Your task to perform on an android device: check google app version Image 0: 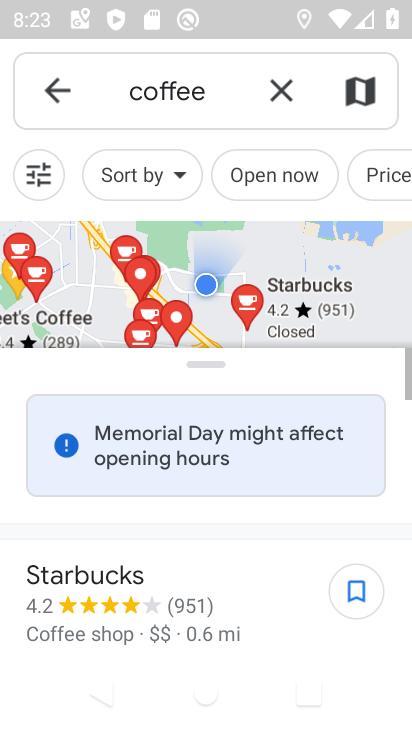
Step 0: press home button
Your task to perform on an android device: check google app version Image 1: 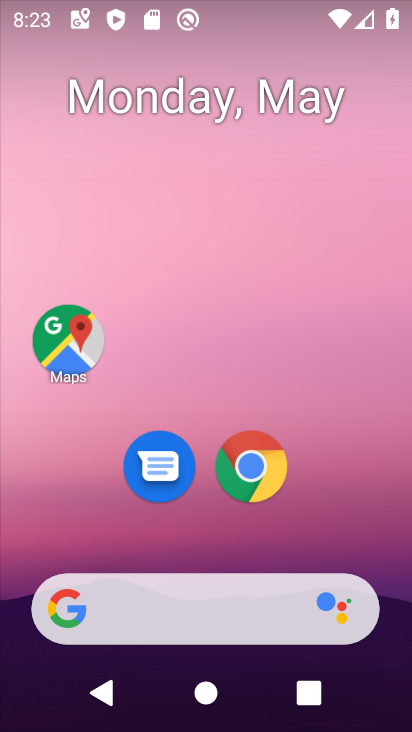
Step 1: drag from (284, 632) to (312, 97)
Your task to perform on an android device: check google app version Image 2: 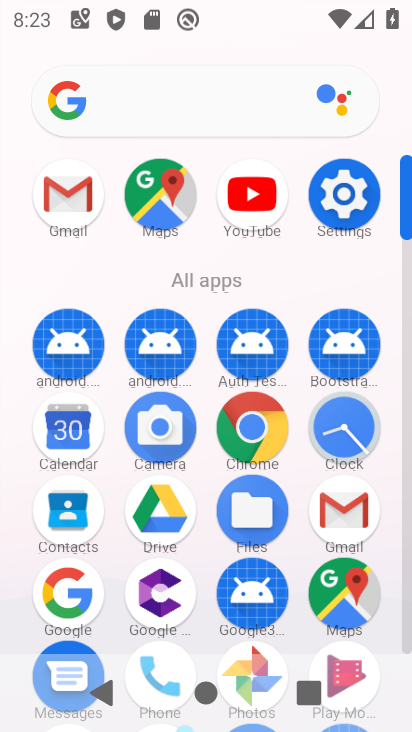
Step 2: click (255, 415)
Your task to perform on an android device: check google app version Image 3: 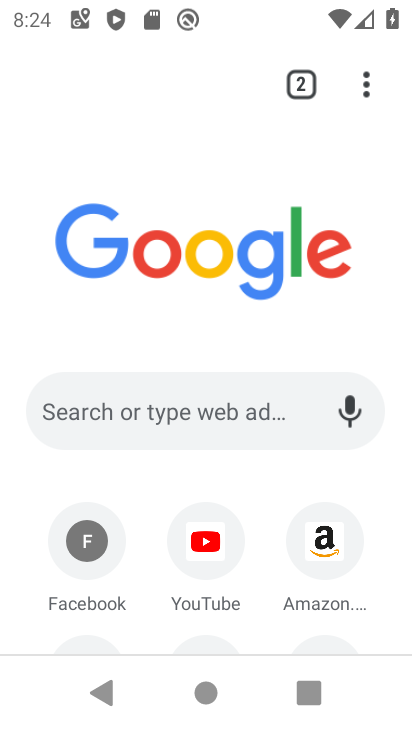
Step 3: click (362, 76)
Your task to perform on an android device: check google app version Image 4: 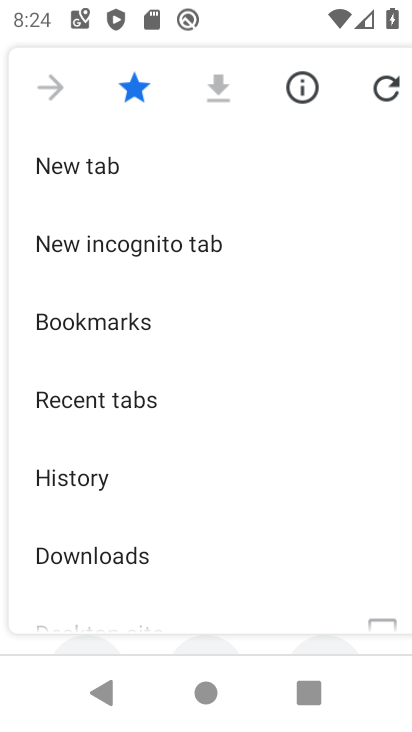
Step 4: drag from (132, 472) to (160, 54)
Your task to perform on an android device: check google app version Image 5: 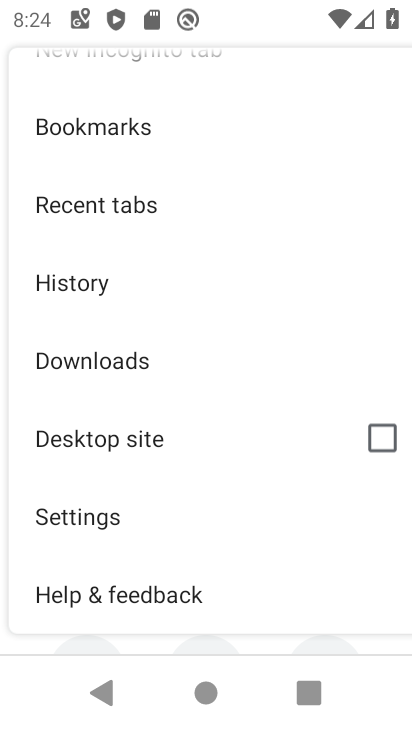
Step 5: click (49, 519)
Your task to perform on an android device: check google app version Image 6: 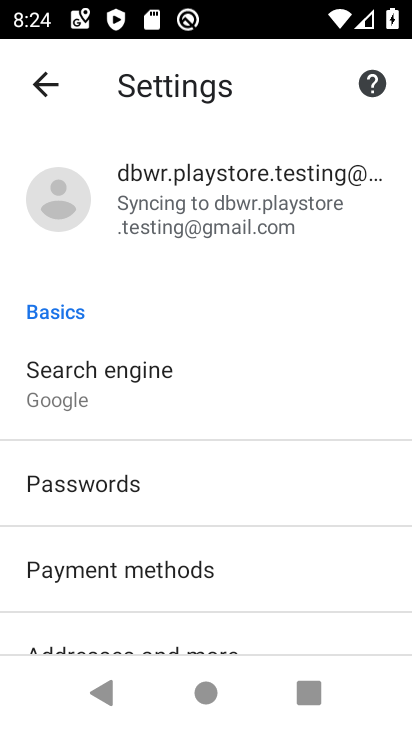
Step 6: drag from (151, 570) to (240, 9)
Your task to perform on an android device: check google app version Image 7: 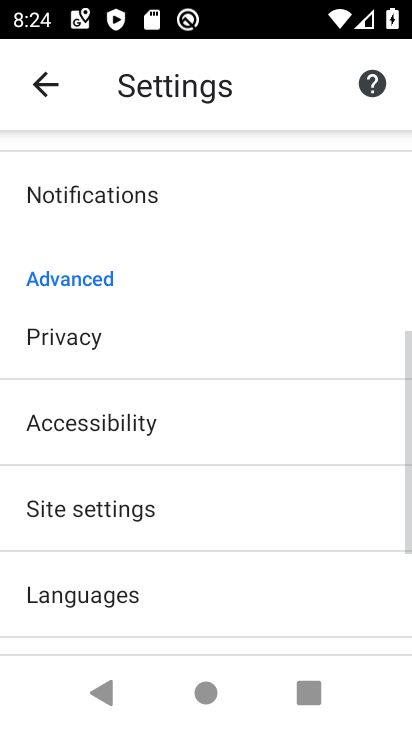
Step 7: drag from (109, 594) to (159, 270)
Your task to perform on an android device: check google app version Image 8: 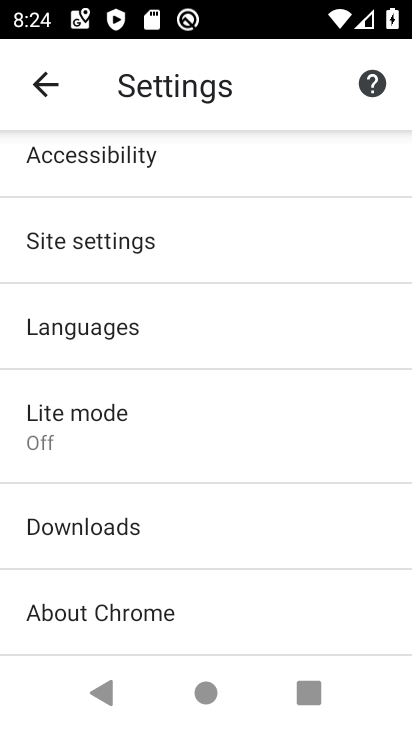
Step 8: click (91, 624)
Your task to perform on an android device: check google app version Image 9: 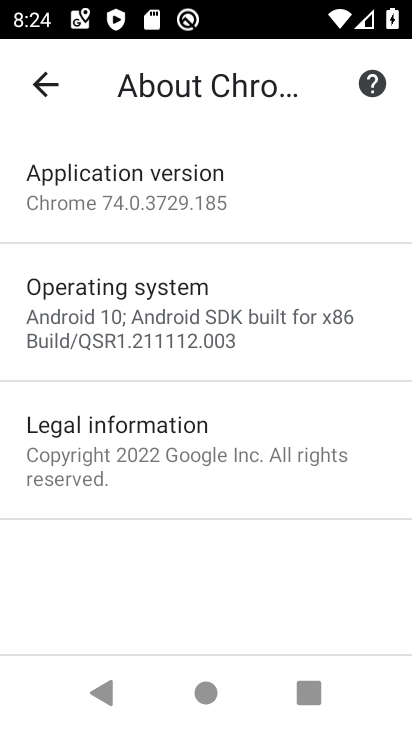
Step 9: click (107, 189)
Your task to perform on an android device: check google app version Image 10: 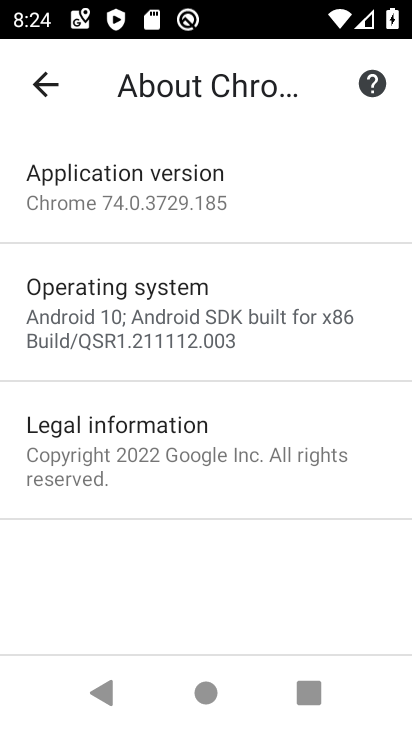
Step 10: task complete